Your task to perform on an android device: Open my contact list Image 0: 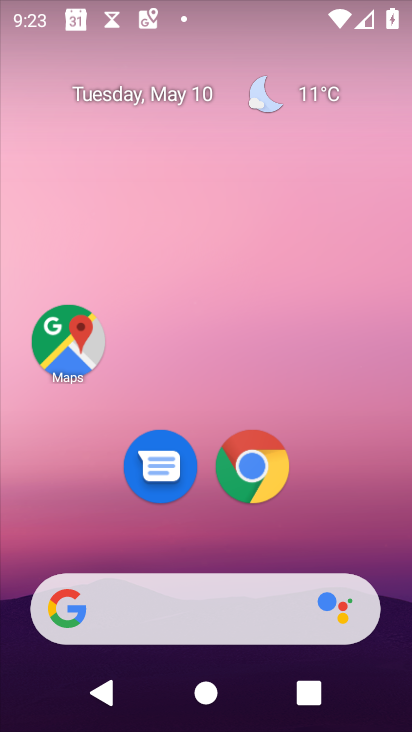
Step 0: drag from (338, 508) to (345, 55)
Your task to perform on an android device: Open my contact list Image 1: 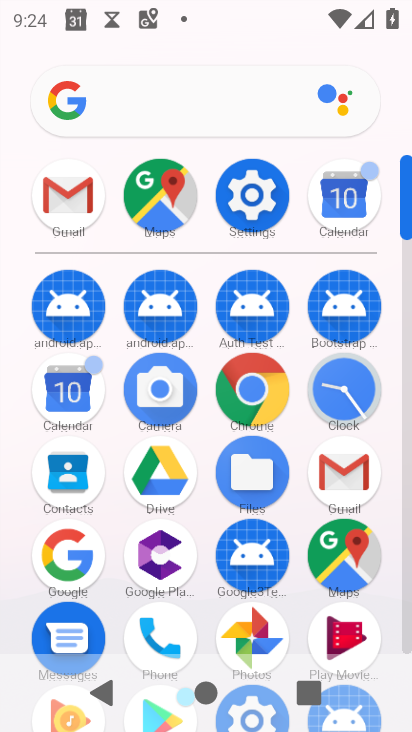
Step 1: click (76, 478)
Your task to perform on an android device: Open my contact list Image 2: 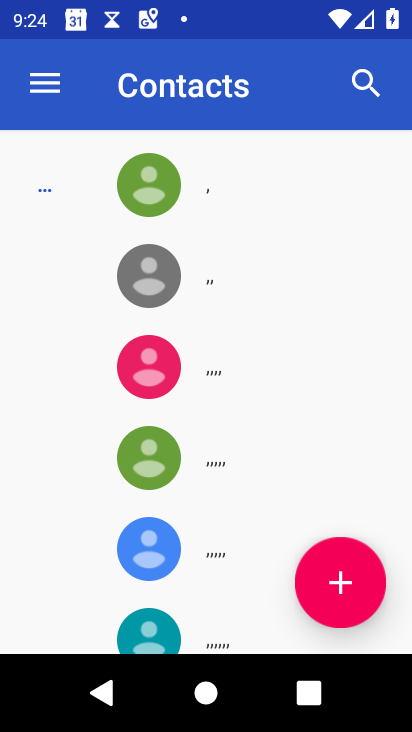
Step 2: task complete